Your task to perform on an android device: turn notification dots on Image 0: 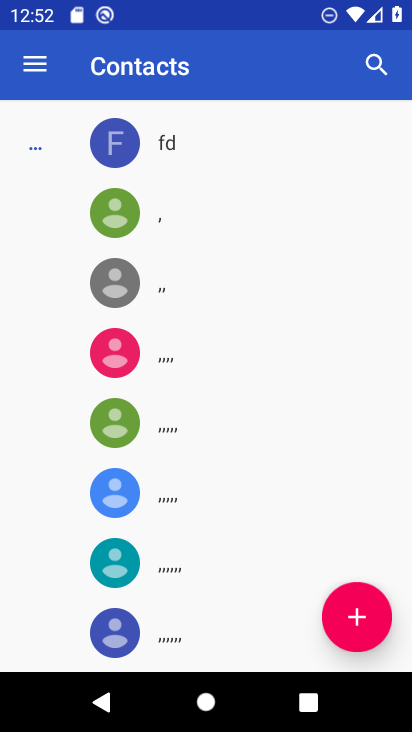
Step 0: press home button
Your task to perform on an android device: turn notification dots on Image 1: 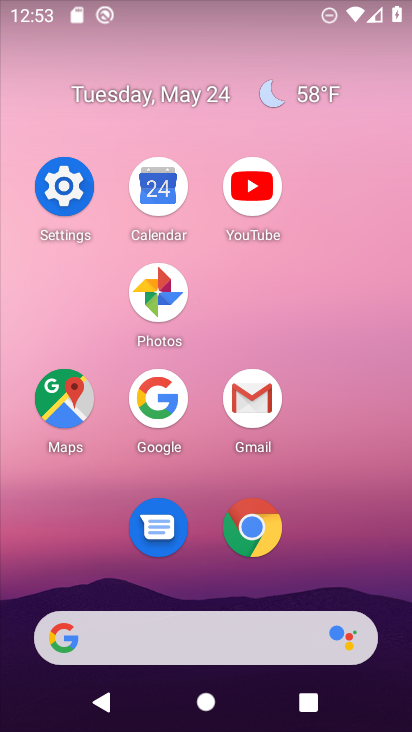
Step 1: click (65, 177)
Your task to perform on an android device: turn notification dots on Image 2: 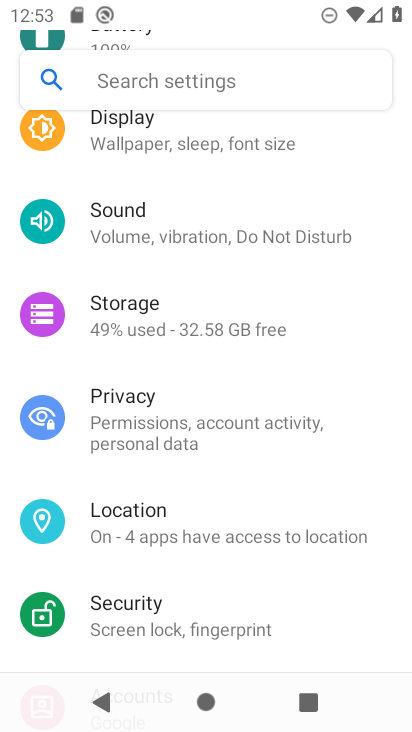
Step 2: drag from (258, 224) to (226, 546)
Your task to perform on an android device: turn notification dots on Image 3: 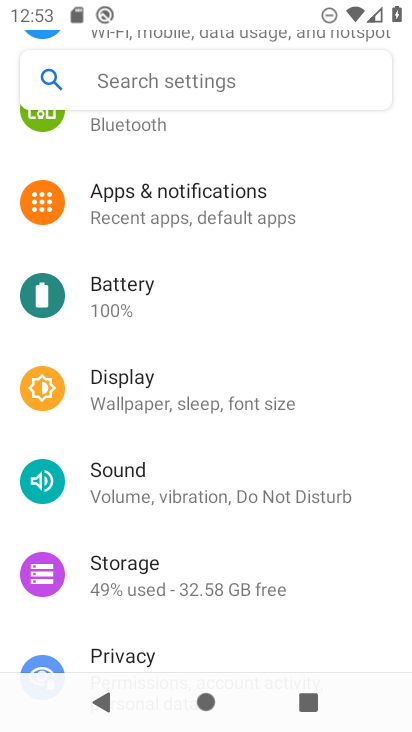
Step 3: click (240, 223)
Your task to perform on an android device: turn notification dots on Image 4: 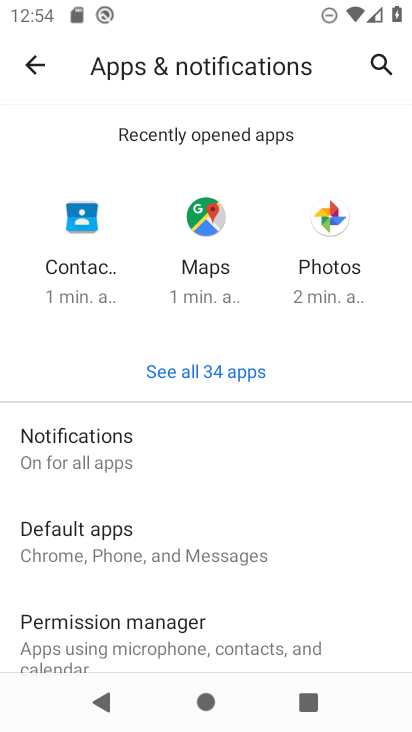
Step 4: click (162, 444)
Your task to perform on an android device: turn notification dots on Image 5: 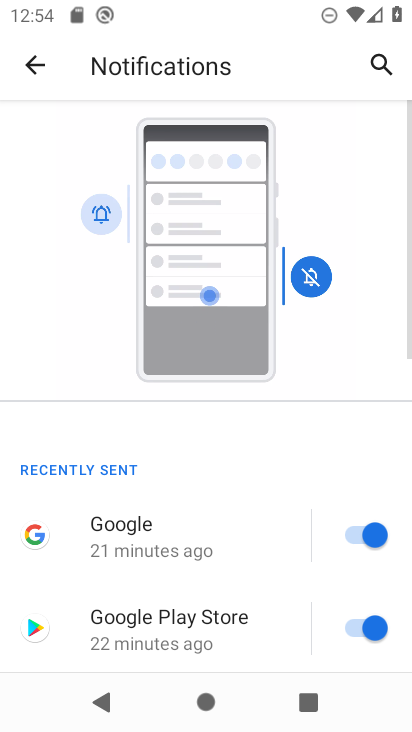
Step 5: drag from (211, 571) to (258, 178)
Your task to perform on an android device: turn notification dots on Image 6: 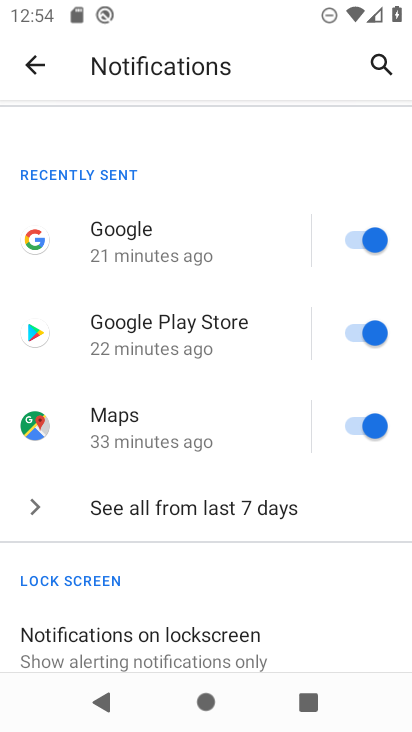
Step 6: drag from (209, 579) to (230, 209)
Your task to perform on an android device: turn notification dots on Image 7: 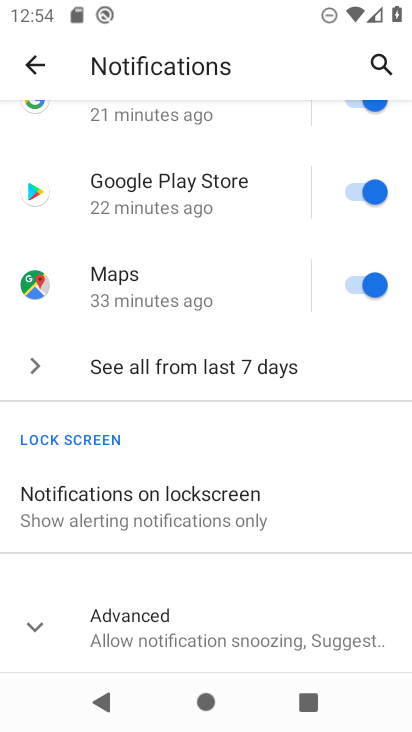
Step 7: click (190, 645)
Your task to perform on an android device: turn notification dots on Image 8: 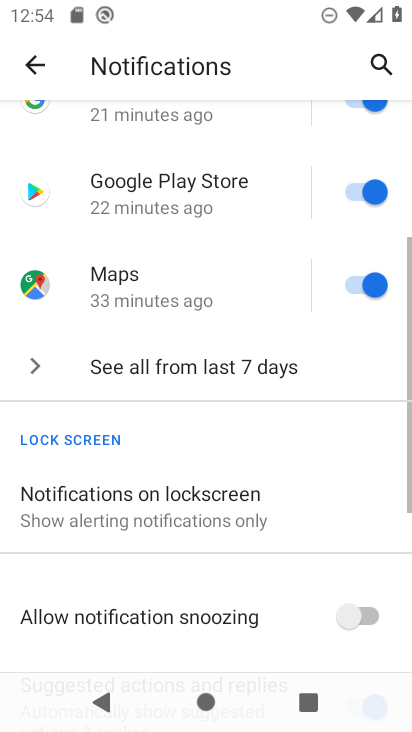
Step 8: drag from (165, 616) to (224, 232)
Your task to perform on an android device: turn notification dots on Image 9: 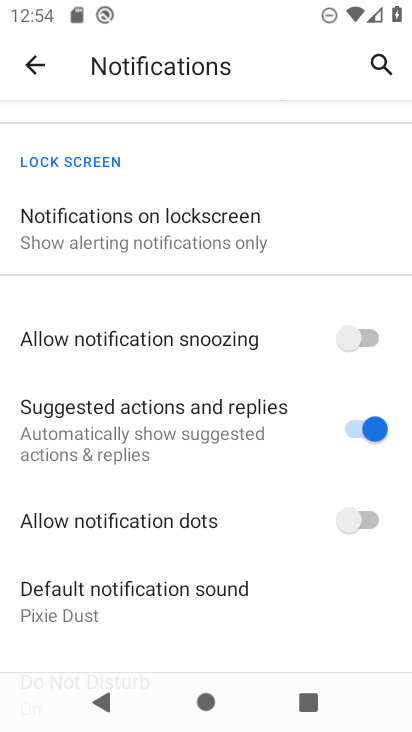
Step 9: click (360, 519)
Your task to perform on an android device: turn notification dots on Image 10: 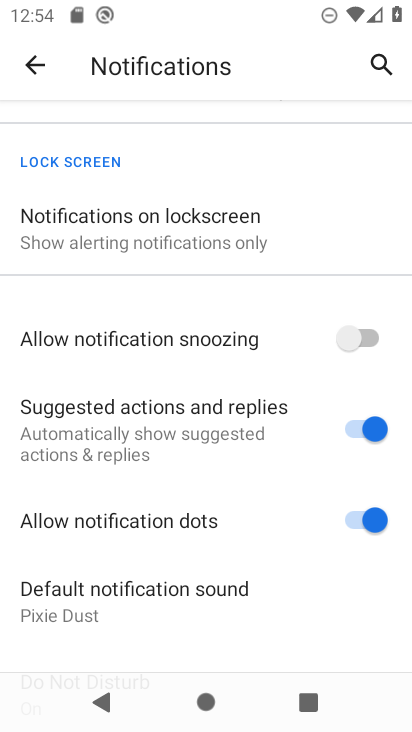
Step 10: click (359, 525)
Your task to perform on an android device: turn notification dots on Image 11: 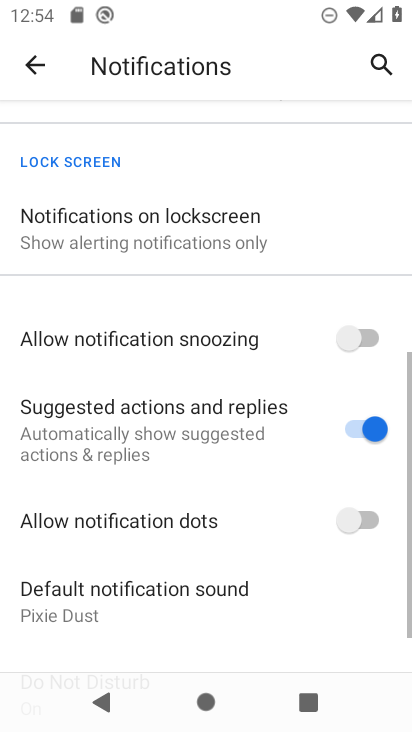
Step 11: task complete